Your task to perform on an android device: Set the phone to "Do not disturb". Image 0: 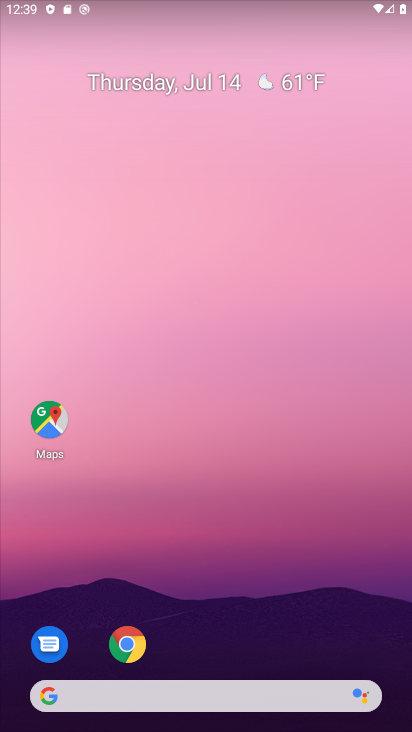
Step 0: drag from (218, 1) to (292, 590)
Your task to perform on an android device: Set the phone to "Do not disturb". Image 1: 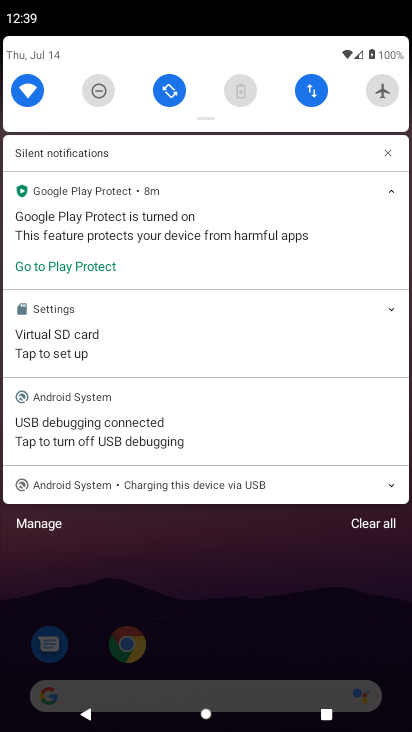
Step 1: click (95, 86)
Your task to perform on an android device: Set the phone to "Do not disturb". Image 2: 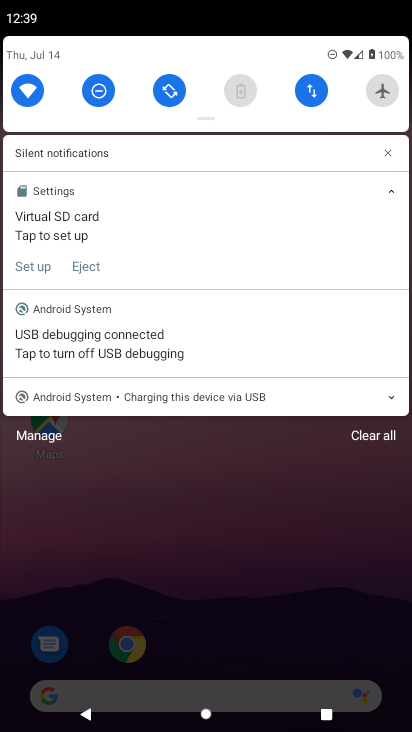
Step 2: task complete